Your task to perform on an android device: turn notification dots on Image 0: 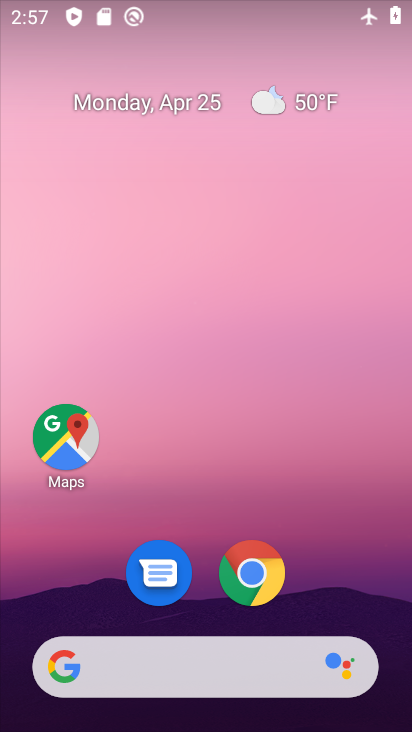
Step 0: click (392, 644)
Your task to perform on an android device: turn notification dots on Image 1: 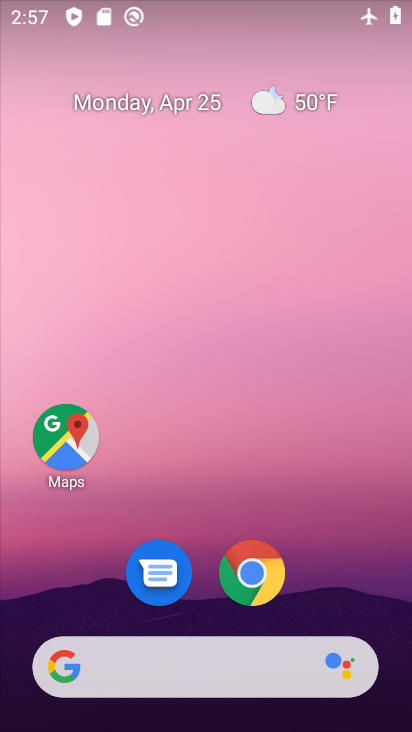
Step 1: drag from (365, 419) to (314, 111)
Your task to perform on an android device: turn notification dots on Image 2: 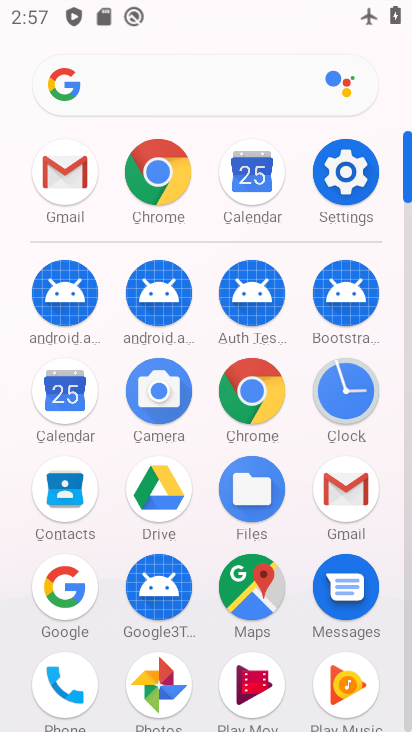
Step 2: click (352, 194)
Your task to perform on an android device: turn notification dots on Image 3: 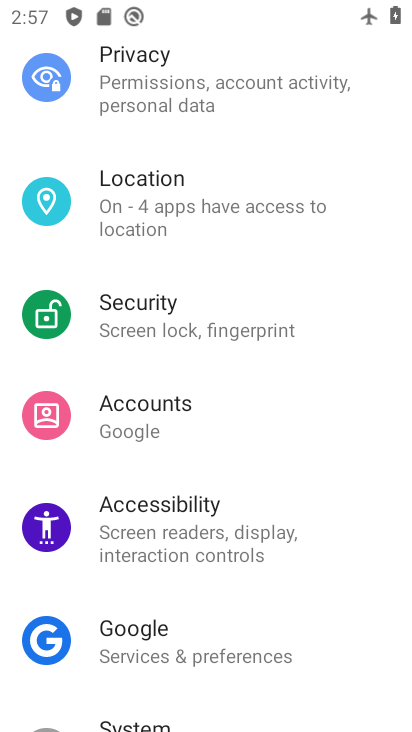
Step 3: drag from (301, 124) to (263, 550)
Your task to perform on an android device: turn notification dots on Image 4: 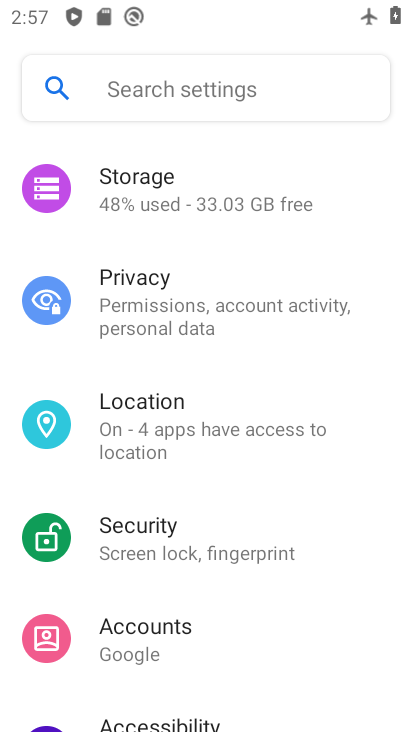
Step 4: drag from (231, 385) to (263, 613)
Your task to perform on an android device: turn notification dots on Image 5: 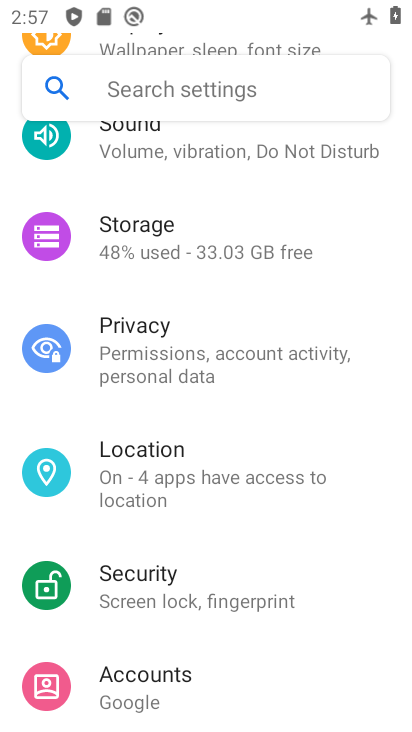
Step 5: drag from (263, 343) to (269, 550)
Your task to perform on an android device: turn notification dots on Image 6: 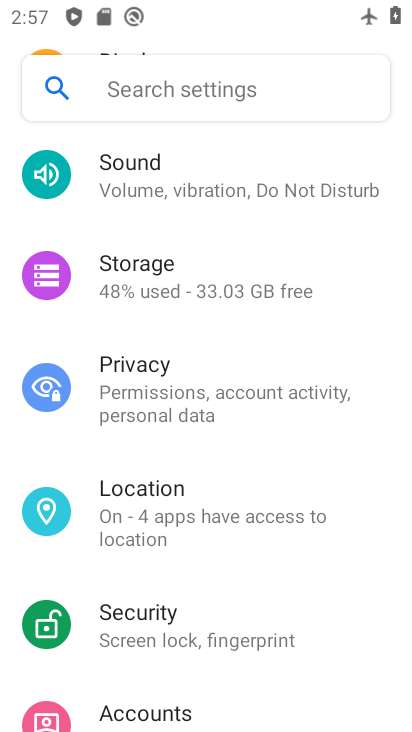
Step 6: drag from (305, 411) to (329, 593)
Your task to perform on an android device: turn notification dots on Image 7: 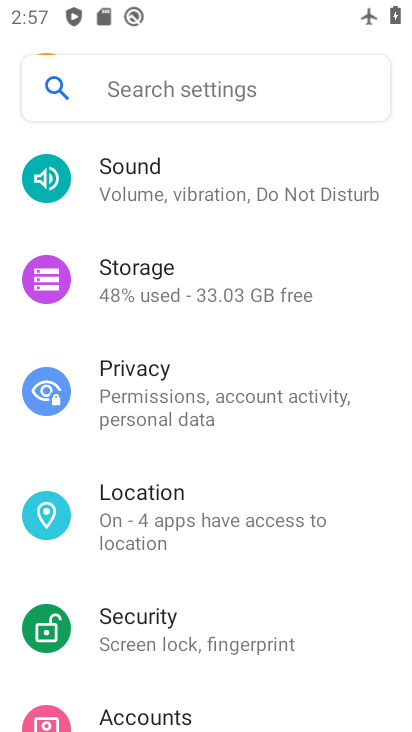
Step 7: drag from (288, 215) to (270, 584)
Your task to perform on an android device: turn notification dots on Image 8: 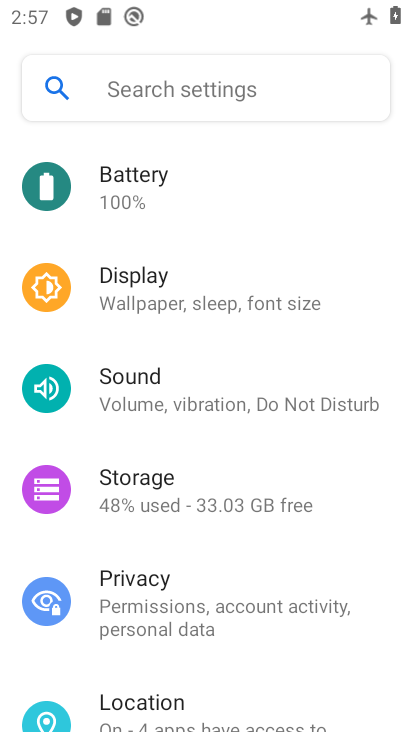
Step 8: drag from (273, 220) to (347, 615)
Your task to perform on an android device: turn notification dots on Image 9: 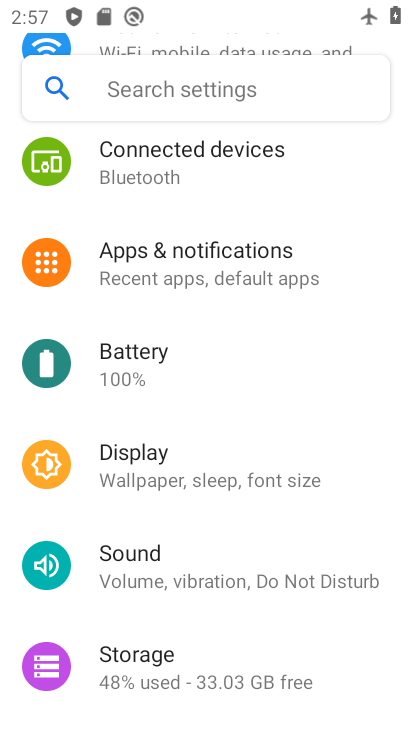
Step 9: drag from (291, 150) to (311, 631)
Your task to perform on an android device: turn notification dots on Image 10: 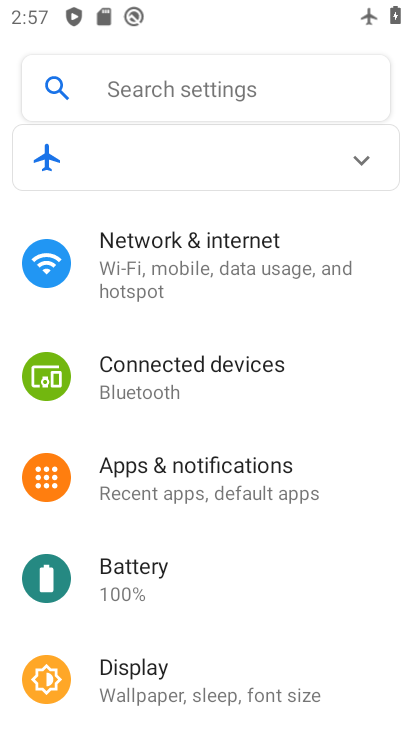
Step 10: click (206, 474)
Your task to perform on an android device: turn notification dots on Image 11: 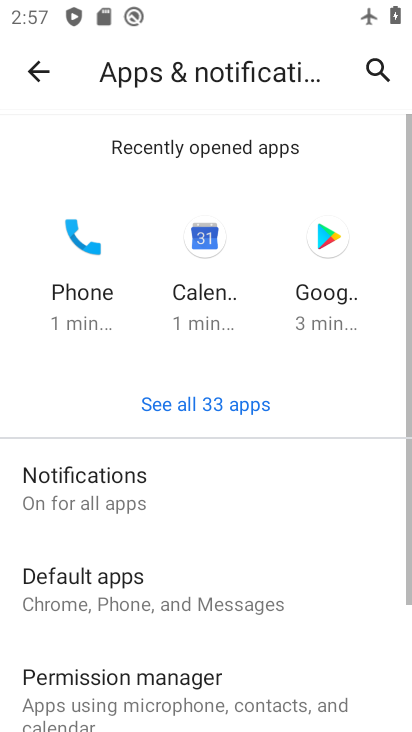
Step 11: drag from (227, 663) to (243, 338)
Your task to perform on an android device: turn notification dots on Image 12: 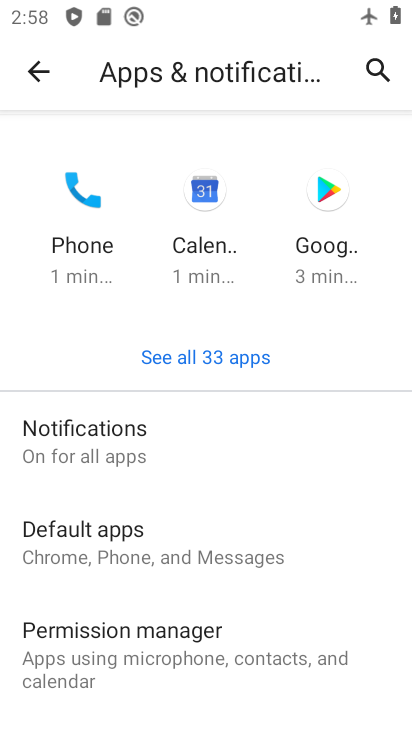
Step 12: click (74, 456)
Your task to perform on an android device: turn notification dots on Image 13: 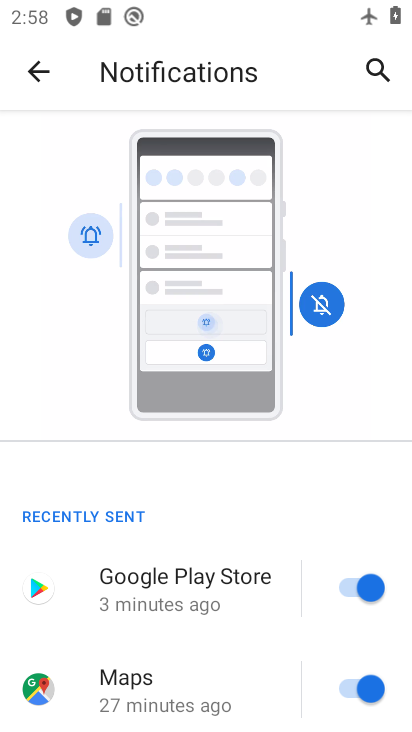
Step 13: drag from (158, 633) to (125, 275)
Your task to perform on an android device: turn notification dots on Image 14: 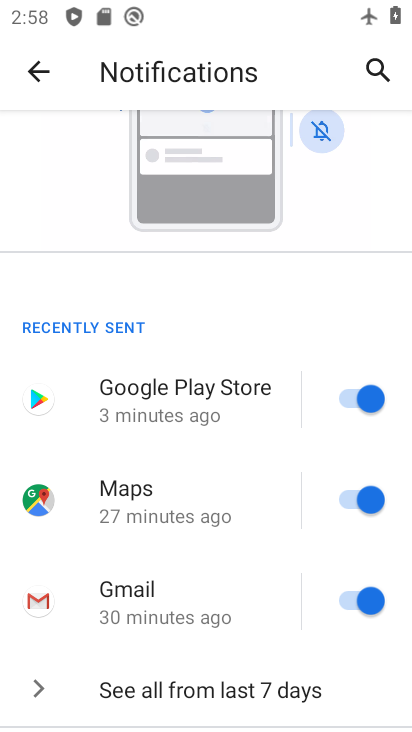
Step 14: drag from (179, 532) to (147, 288)
Your task to perform on an android device: turn notification dots on Image 15: 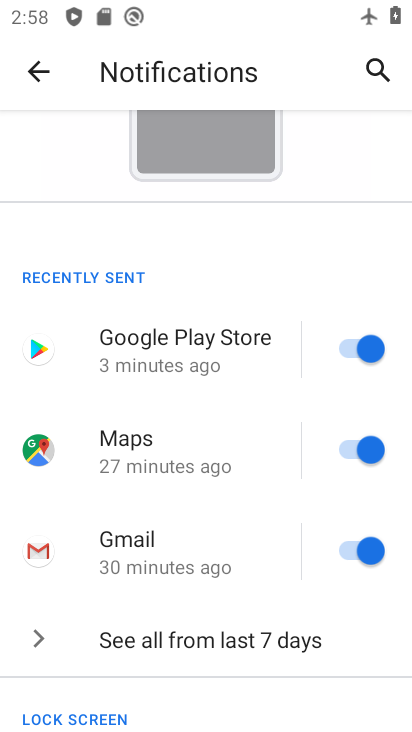
Step 15: drag from (233, 585) to (226, 241)
Your task to perform on an android device: turn notification dots on Image 16: 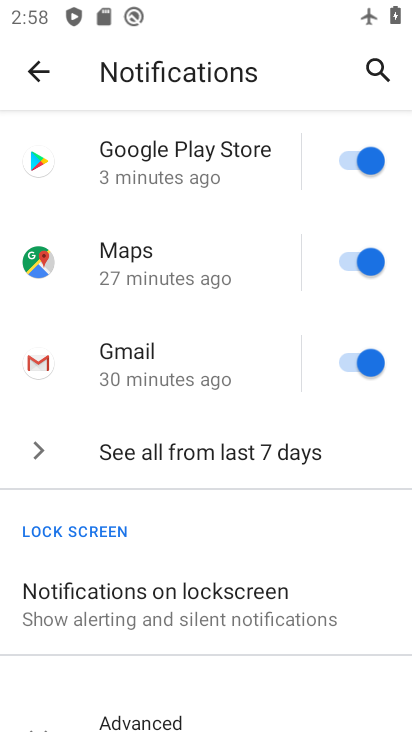
Step 16: drag from (222, 618) to (203, 270)
Your task to perform on an android device: turn notification dots on Image 17: 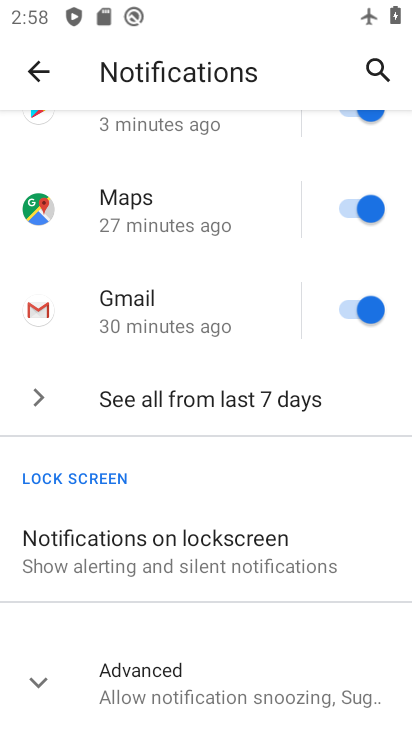
Step 17: drag from (195, 514) to (167, 269)
Your task to perform on an android device: turn notification dots on Image 18: 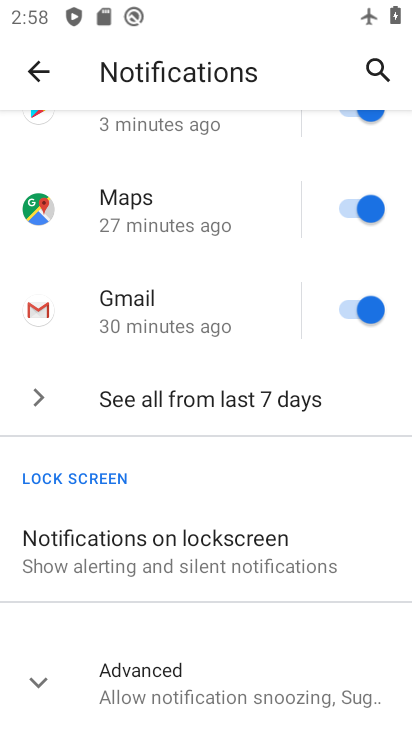
Step 18: click (161, 678)
Your task to perform on an android device: turn notification dots on Image 19: 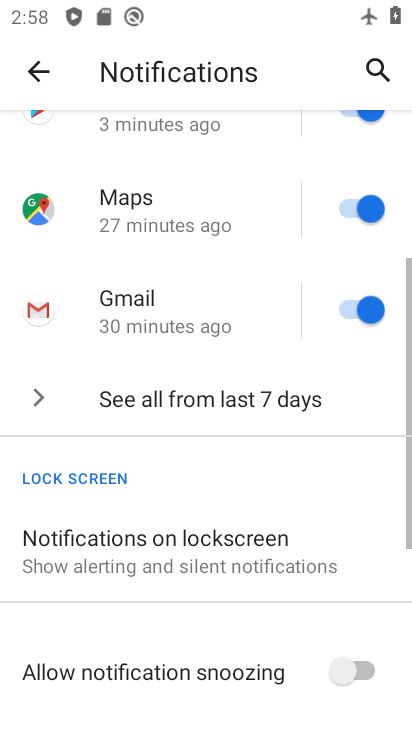
Step 19: drag from (163, 622) to (168, 226)
Your task to perform on an android device: turn notification dots on Image 20: 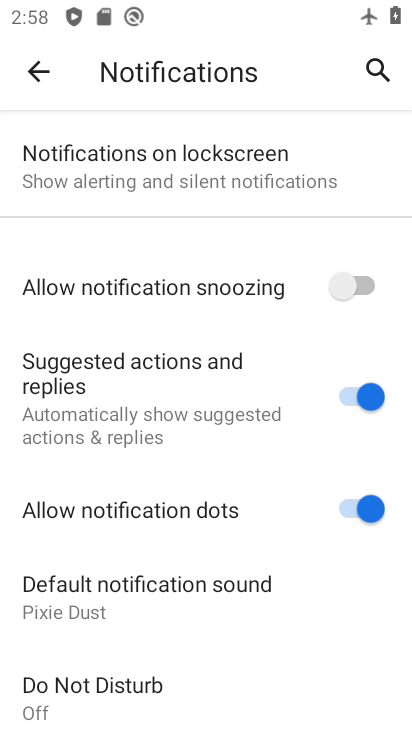
Step 20: drag from (186, 628) to (187, 279)
Your task to perform on an android device: turn notification dots on Image 21: 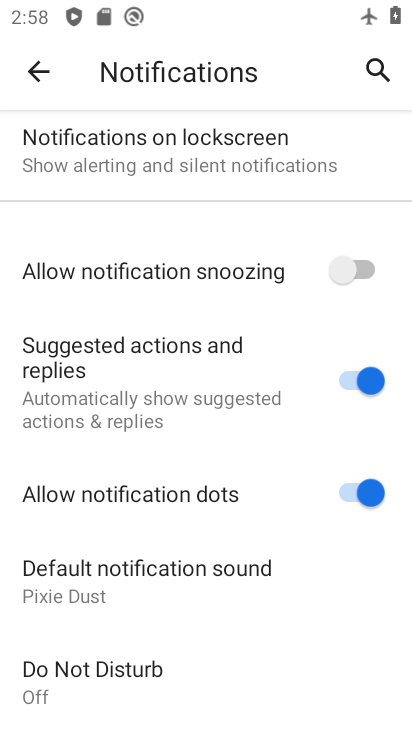
Step 21: click (339, 493)
Your task to perform on an android device: turn notification dots on Image 22: 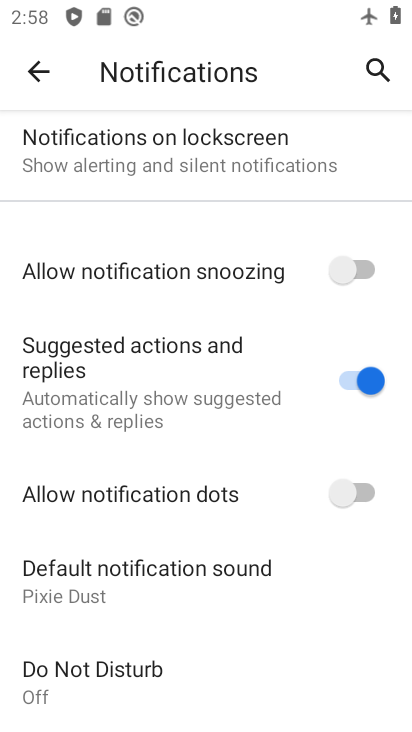
Step 22: task complete